Your task to perform on an android device: Open ESPN.com Image 0: 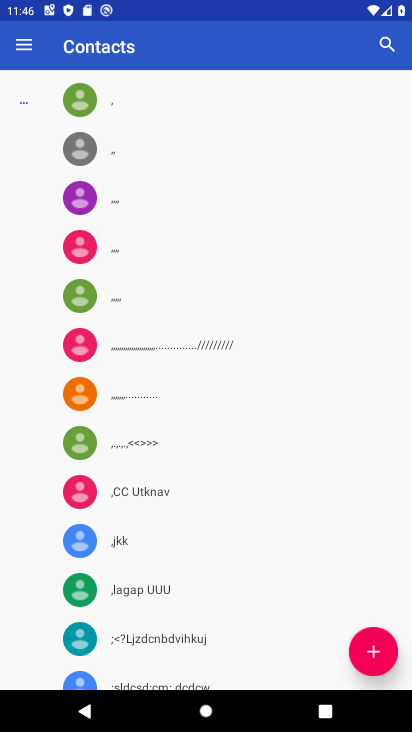
Step 0: press home button
Your task to perform on an android device: Open ESPN.com Image 1: 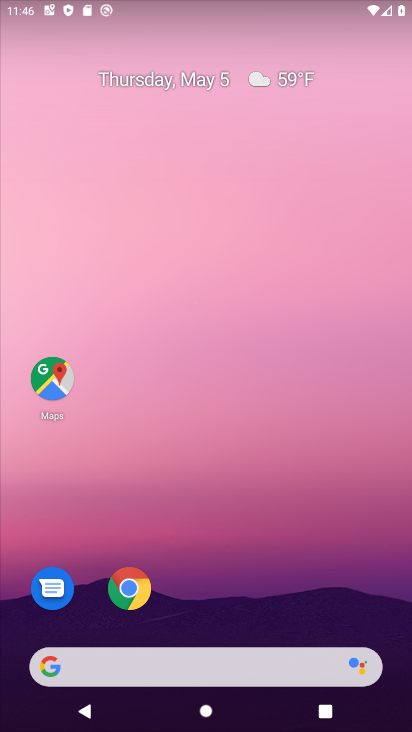
Step 1: click (275, 658)
Your task to perform on an android device: Open ESPN.com Image 2: 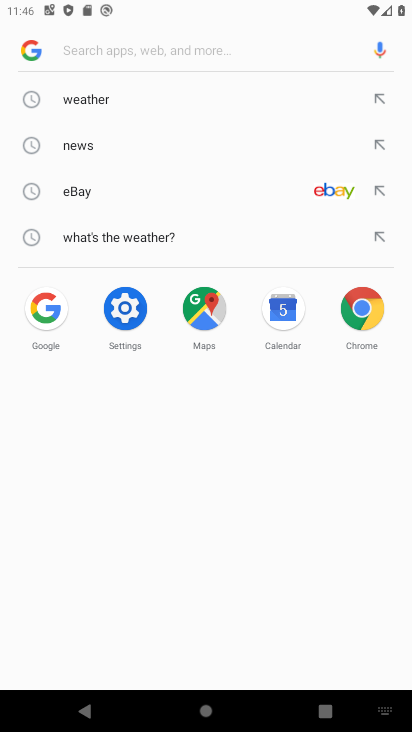
Step 2: type "espn.com"
Your task to perform on an android device: Open ESPN.com Image 3: 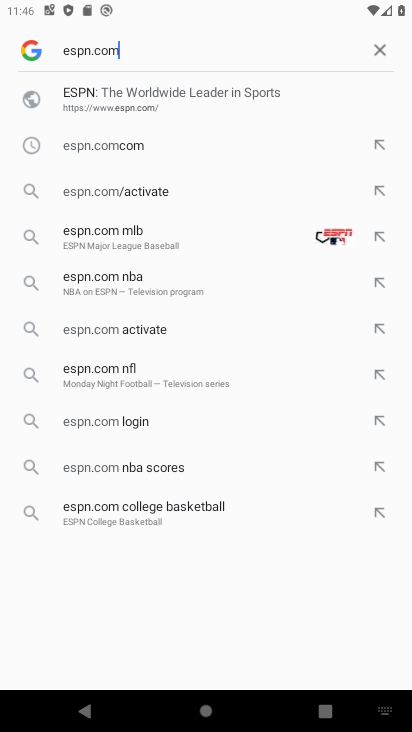
Step 3: click (237, 86)
Your task to perform on an android device: Open ESPN.com Image 4: 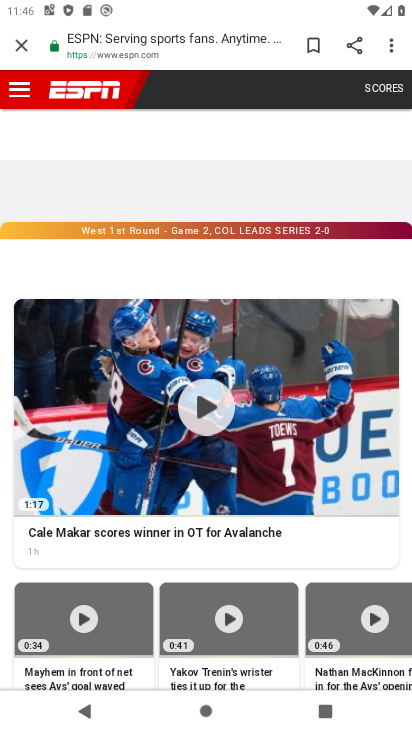
Step 4: task complete